Your task to perform on an android device: snooze an email in the gmail app Image 0: 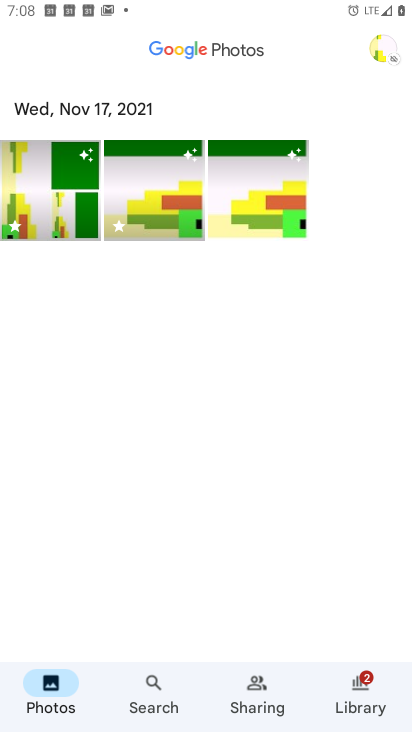
Step 0: press home button
Your task to perform on an android device: snooze an email in the gmail app Image 1: 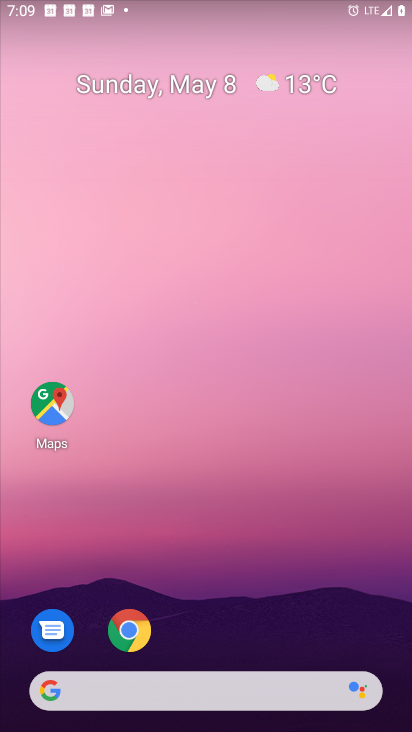
Step 1: drag from (237, 603) to (164, 112)
Your task to perform on an android device: snooze an email in the gmail app Image 2: 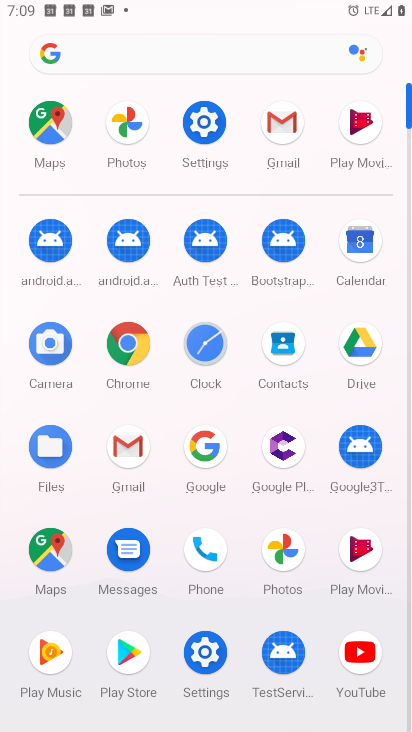
Step 2: click (283, 139)
Your task to perform on an android device: snooze an email in the gmail app Image 3: 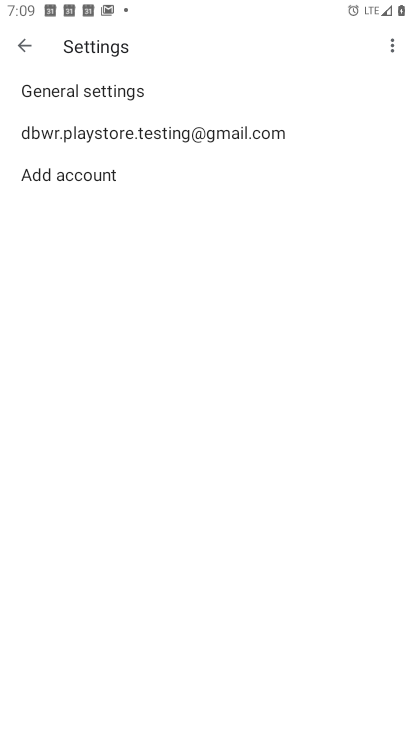
Step 3: click (22, 38)
Your task to perform on an android device: snooze an email in the gmail app Image 4: 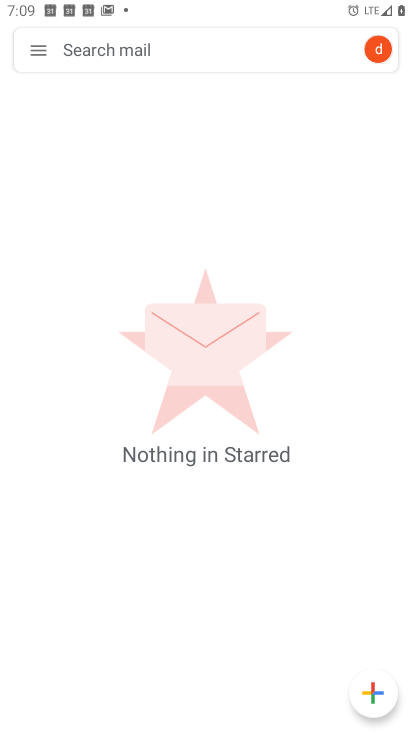
Step 4: click (39, 52)
Your task to perform on an android device: snooze an email in the gmail app Image 5: 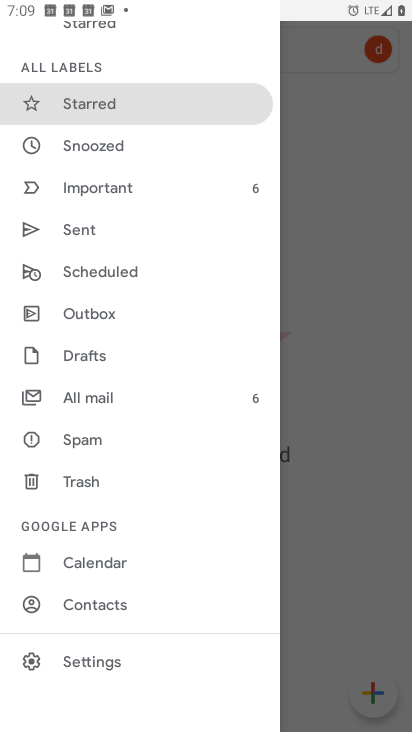
Step 5: click (88, 145)
Your task to perform on an android device: snooze an email in the gmail app Image 6: 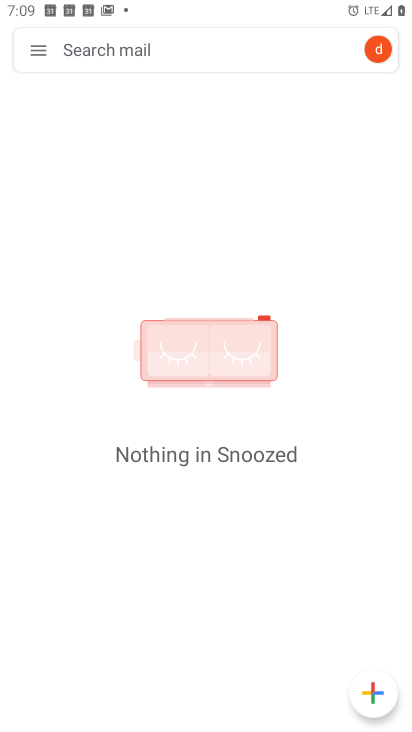
Step 6: click (36, 45)
Your task to perform on an android device: snooze an email in the gmail app Image 7: 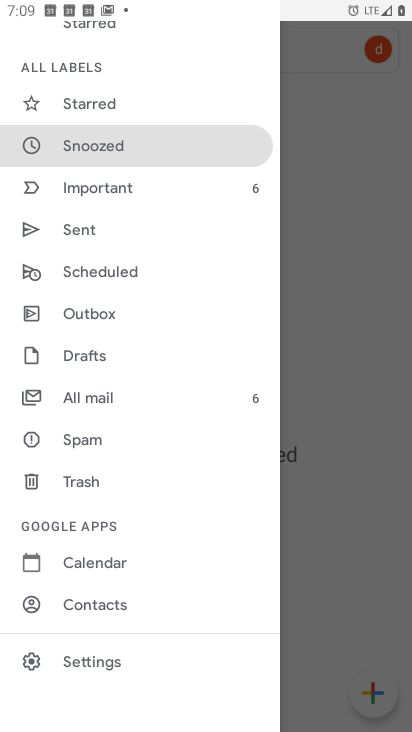
Step 7: click (86, 400)
Your task to perform on an android device: snooze an email in the gmail app Image 8: 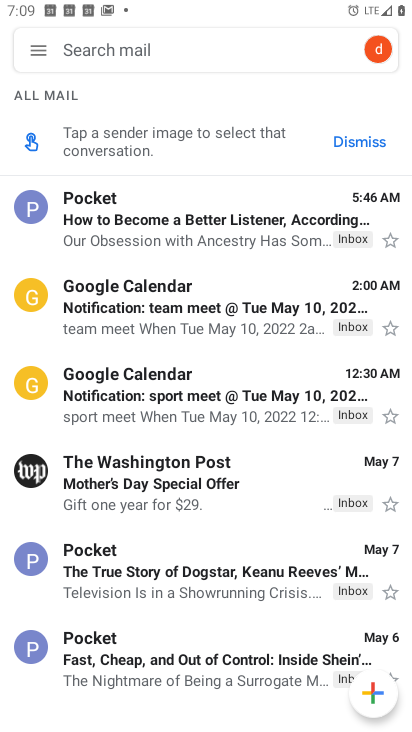
Step 8: click (247, 227)
Your task to perform on an android device: snooze an email in the gmail app Image 9: 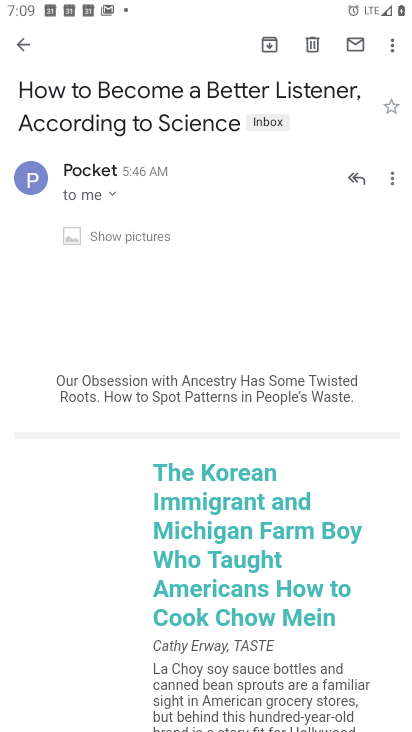
Step 9: click (396, 44)
Your task to perform on an android device: snooze an email in the gmail app Image 10: 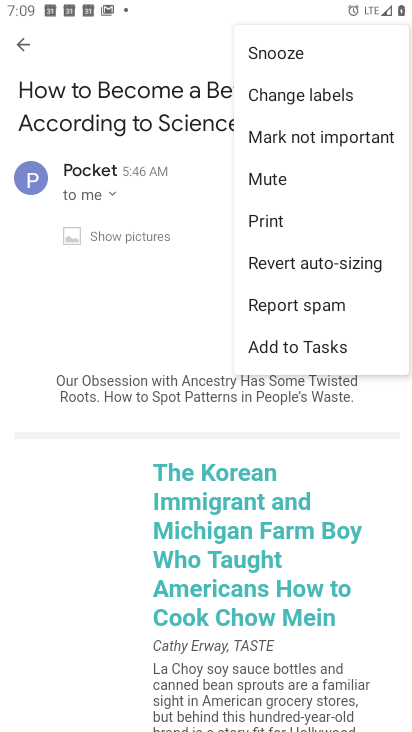
Step 10: click (284, 52)
Your task to perform on an android device: snooze an email in the gmail app Image 11: 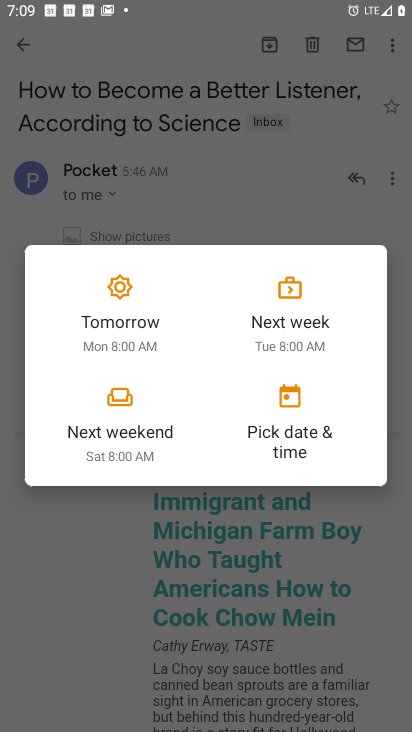
Step 11: click (115, 312)
Your task to perform on an android device: snooze an email in the gmail app Image 12: 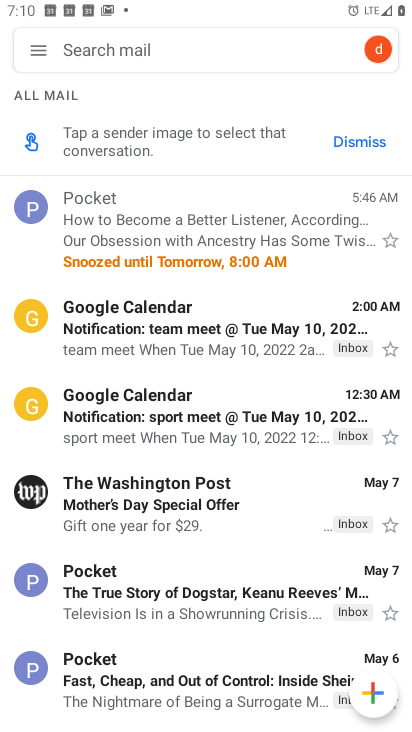
Step 12: task complete